Your task to perform on an android device: toggle wifi Image 0: 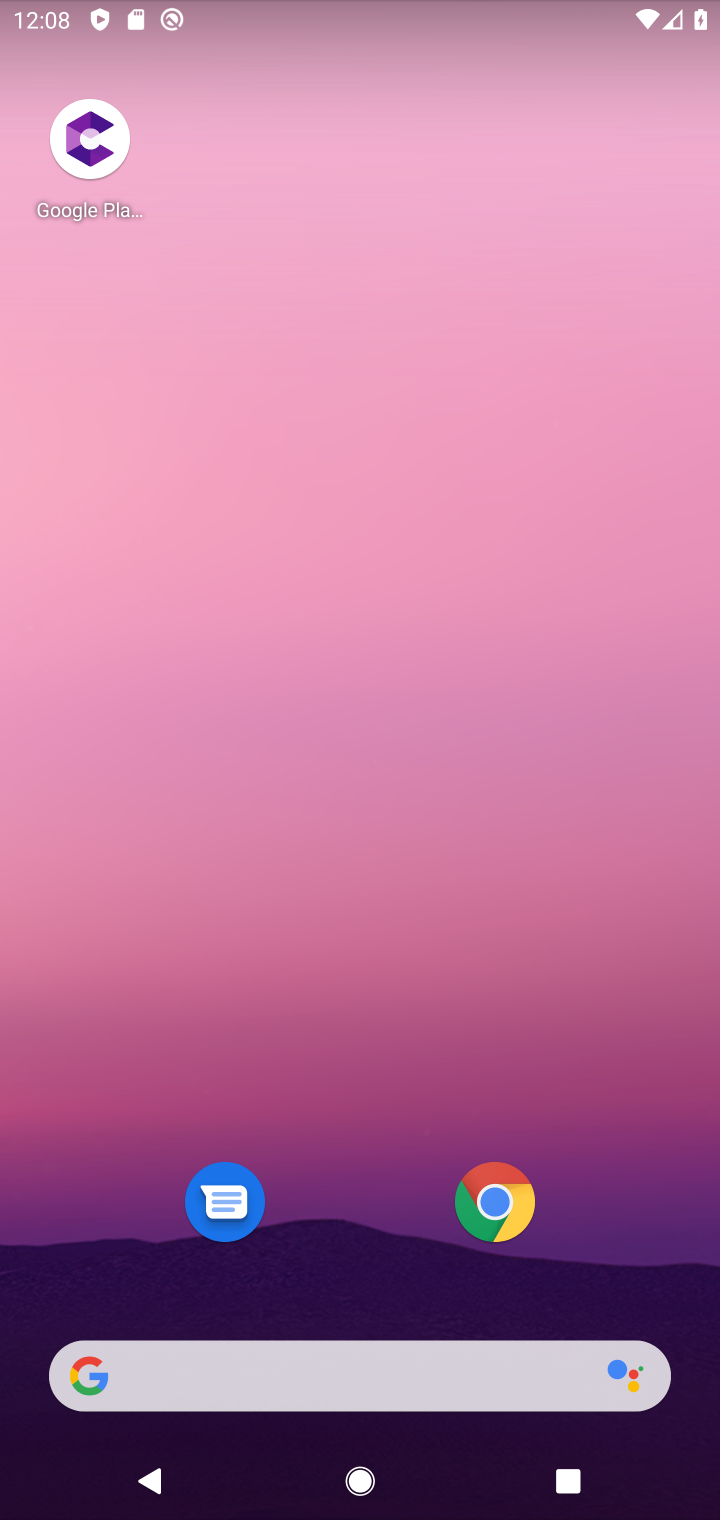
Step 0: click (473, 233)
Your task to perform on an android device: toggle wifi Image 1: 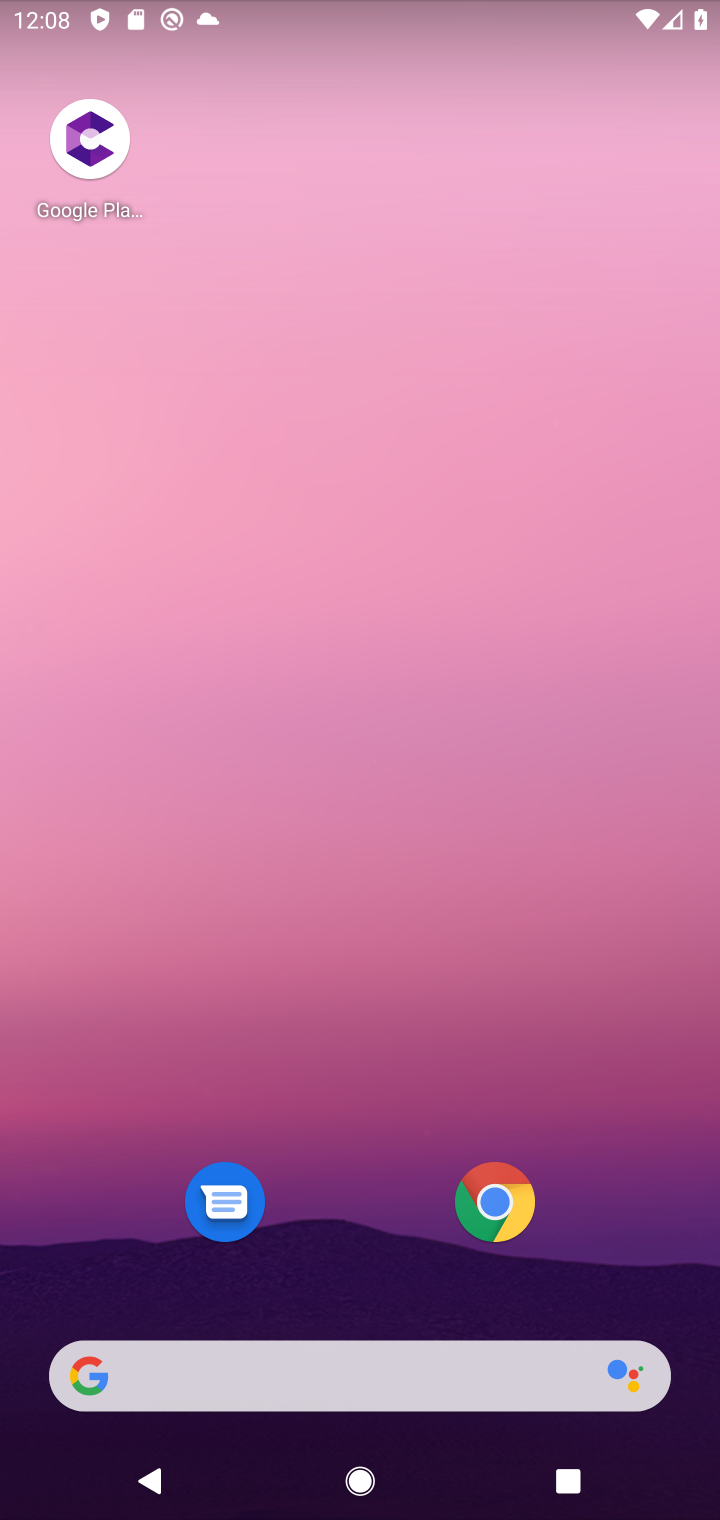
Step 1: drag from (322, 702) to (140, 3)
Your task to perform on an android device: toggle wifi Image 2: 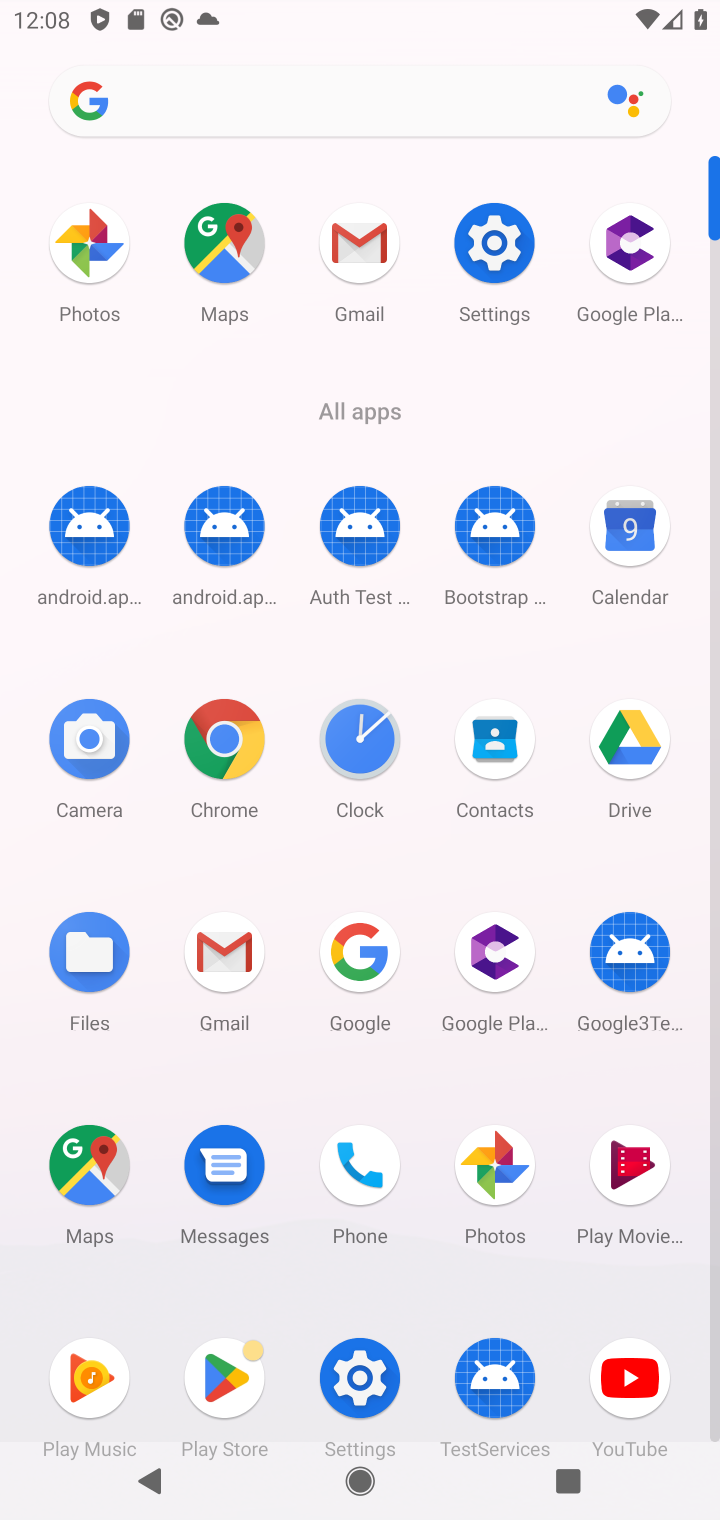
Step 2: click (480, 248)
Your task to perform on an android device: toggle wifi Image 3: 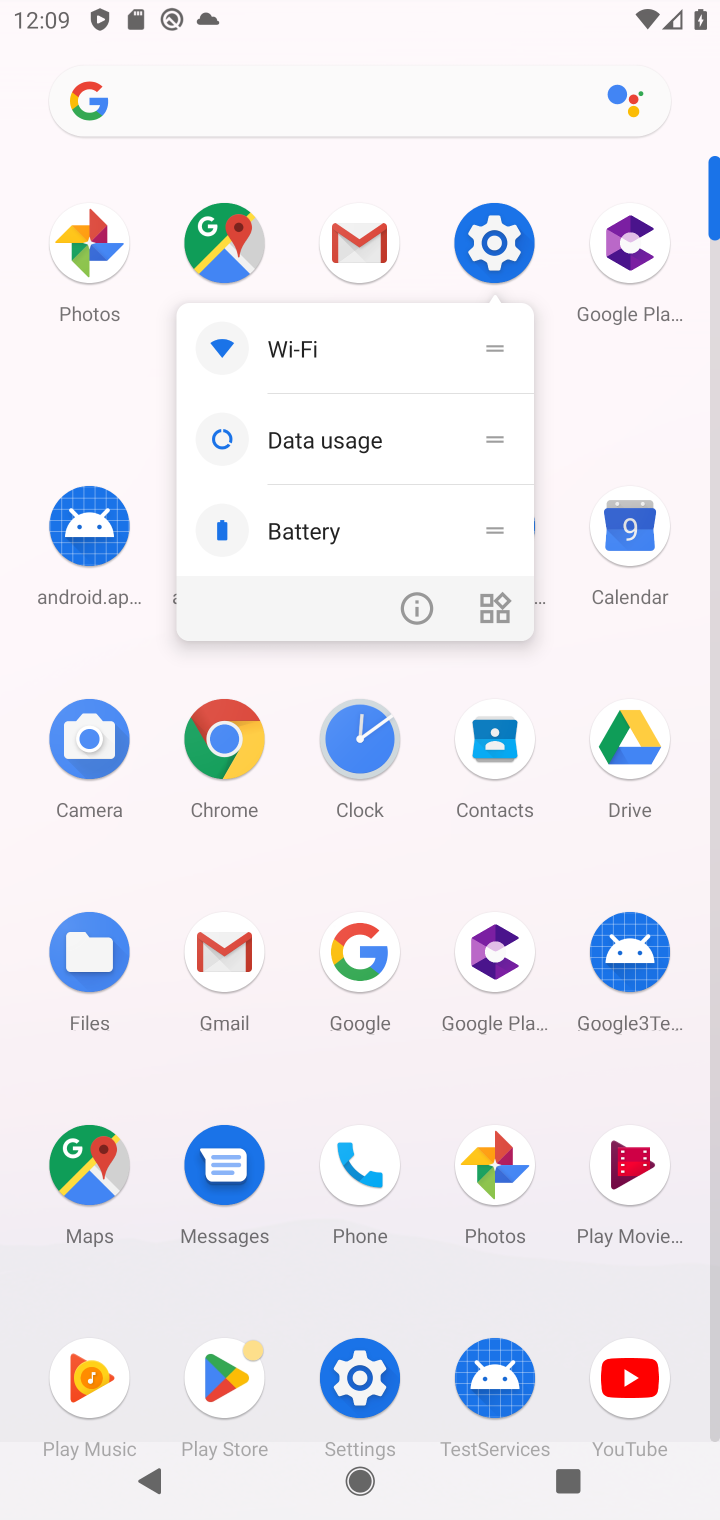
Step 3: click (485, 248)
Your task to perform on an android device: toggle wifi Image 4: 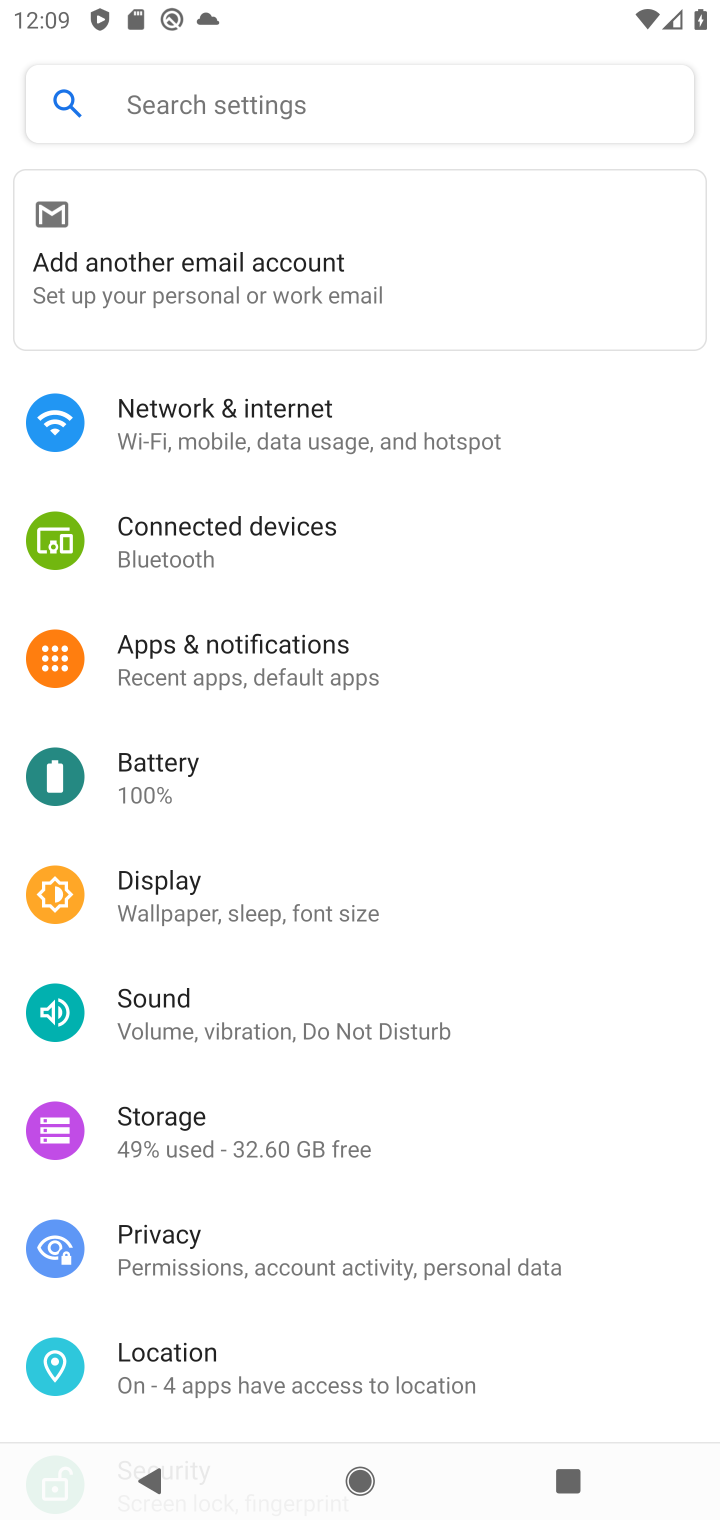
Step 4: click (274, 442)
Your task to perform on an android device: toggle wifi Image 5: 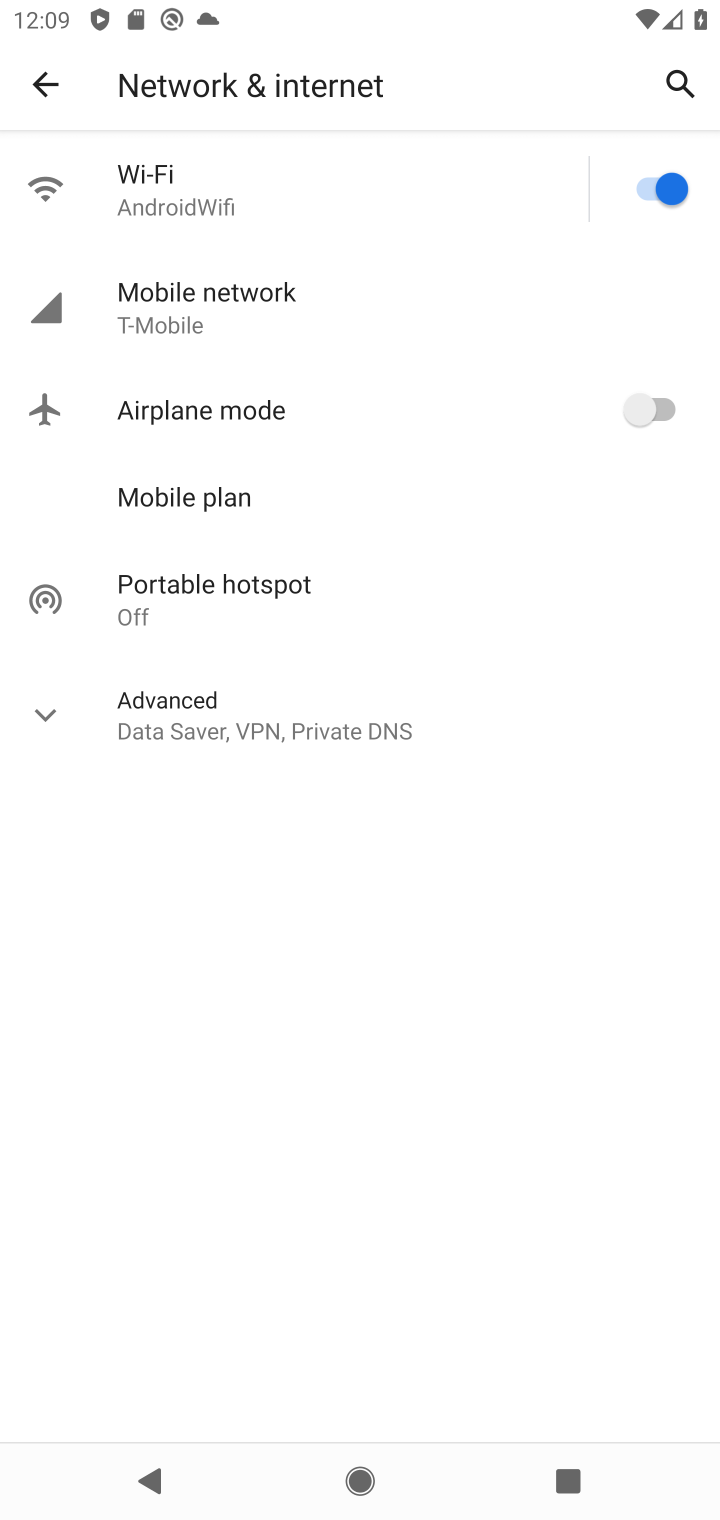
Step 5: click (654, 196)
Your task to perform on an android device: toggle wifi Image 6: 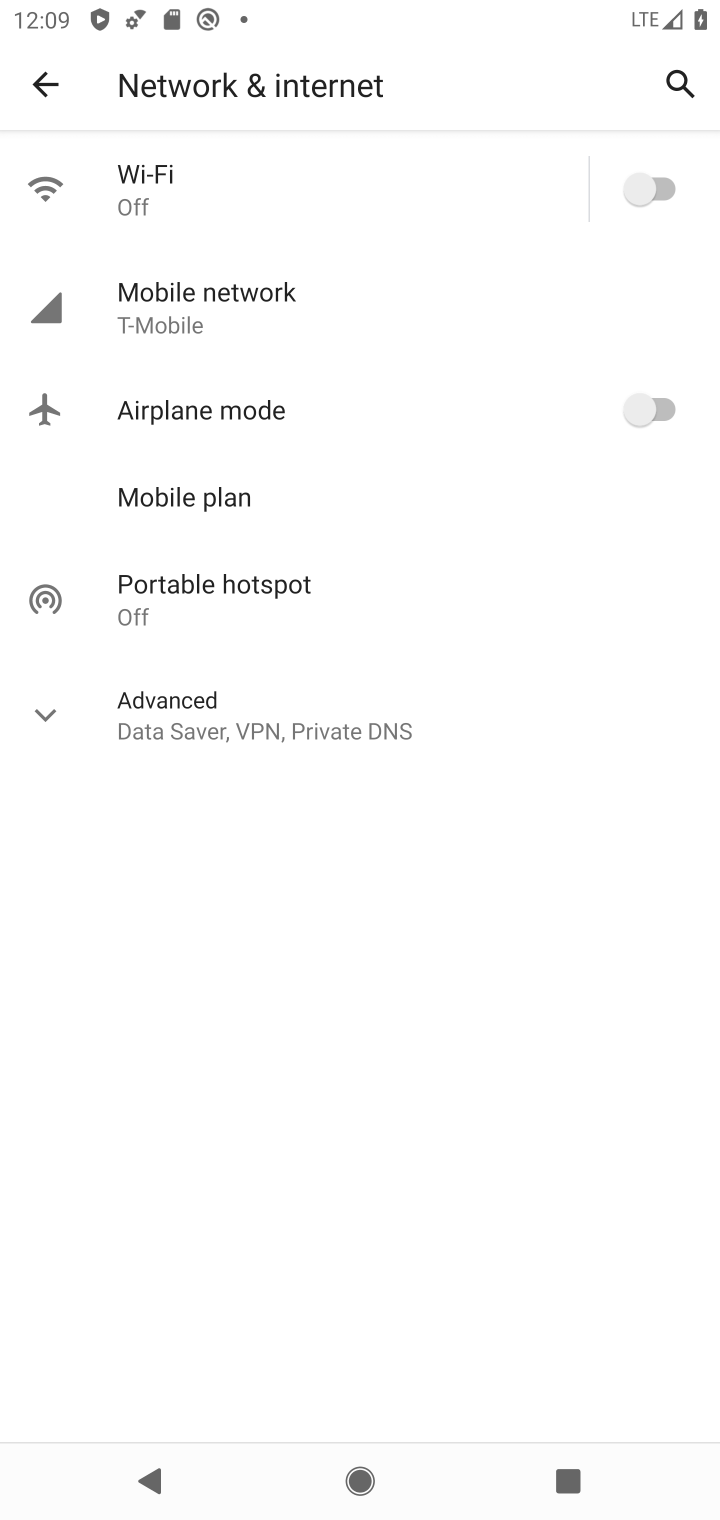
Step 6: task complete